Your task to perform on an android device: open chrome and create a bookmark for the current page Image 0: 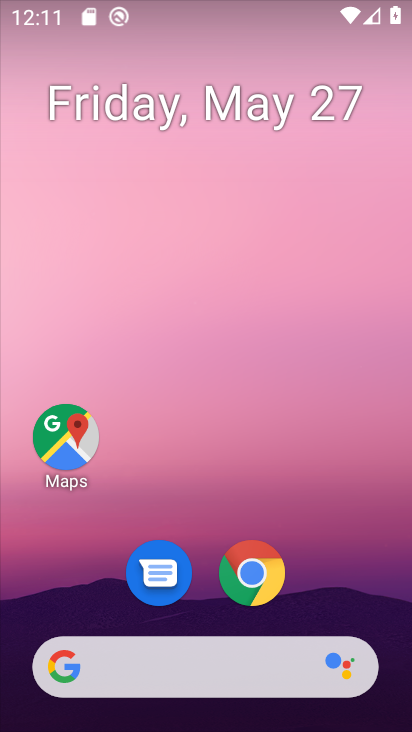
Step 0: click (262, 570)
Your task to perform on an android device: open chrome and create a bookmark for the current page Image 1: 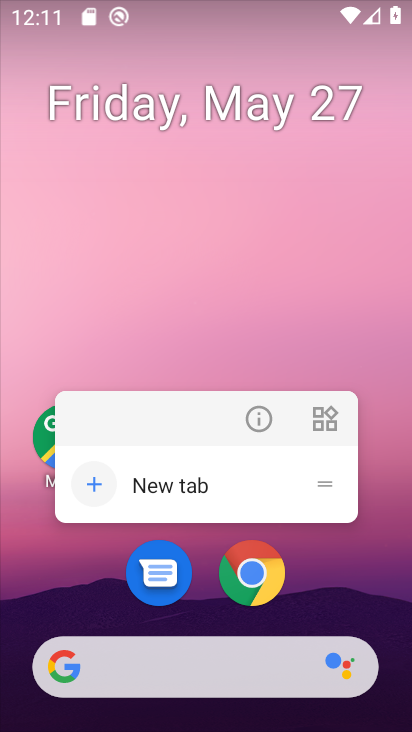
Step 1: click (257, 572)
Your task to perform on an android device: open chrome and create a bookmark for the current page Image 2: 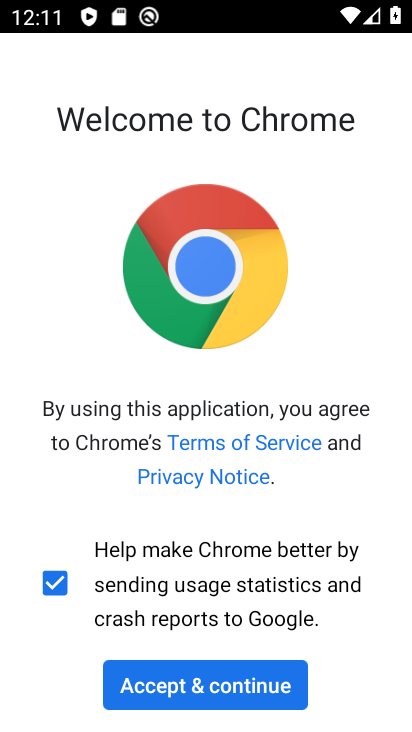
Step 2: click (225, 689)
Your task to perform on an android device: open chrome and create a bookmark for the current page Image 3: 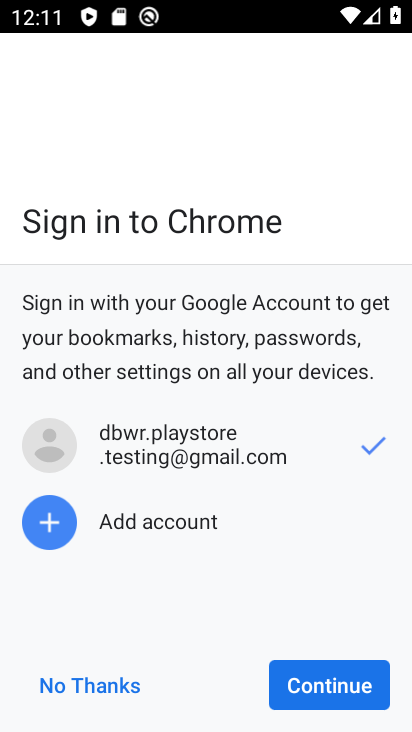
Step 3: click (322, 674)
Your task to perform on an android device: open chrome and create a bookmark for the current page Image 4: 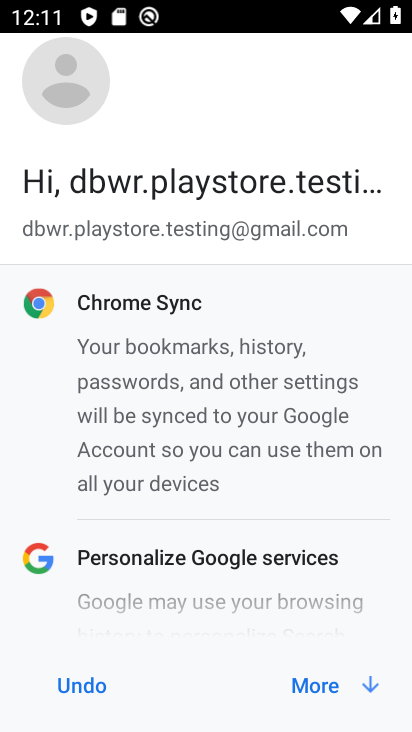
Step 4: click (322, 674)
Your task to perform on an android device: open chrome and create a bookmark for the current page Image 5: 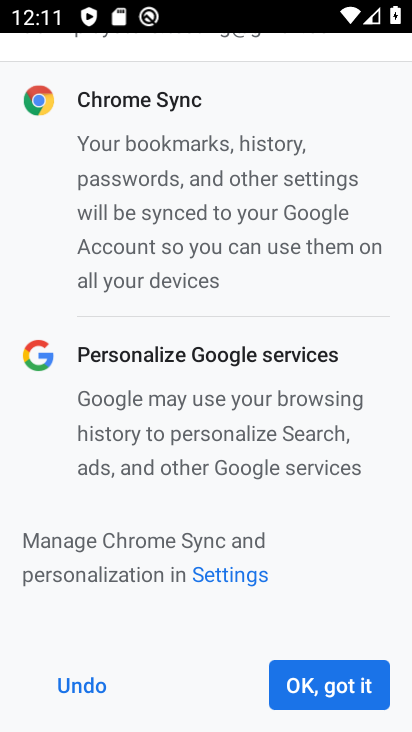
Step 5: click (322, 674)
Your task to perform on an android device: open chrome and create a bookmark for the current page Image 6: 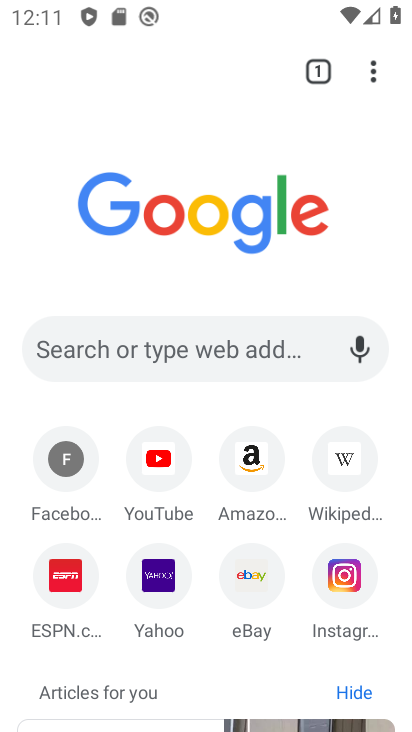
Step 6: task complete